Your task to perform on an android device: change alarm snooze length Image 0: 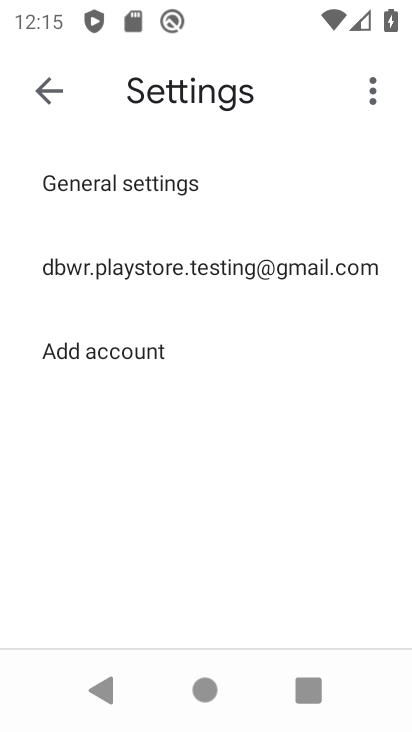
Step 0: press home button
Your task to perform on an android device: change alarm snooze length Image 1: 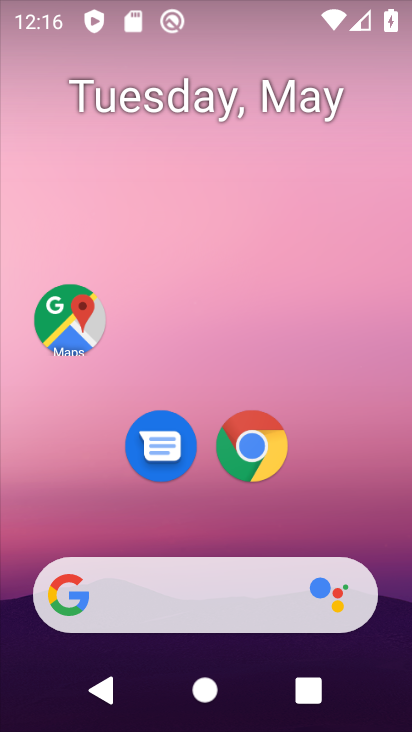
Step 1: drag from (205, 633) to (194, 199)
Your task to perform on an android device: change alarm snooze length Image 2: 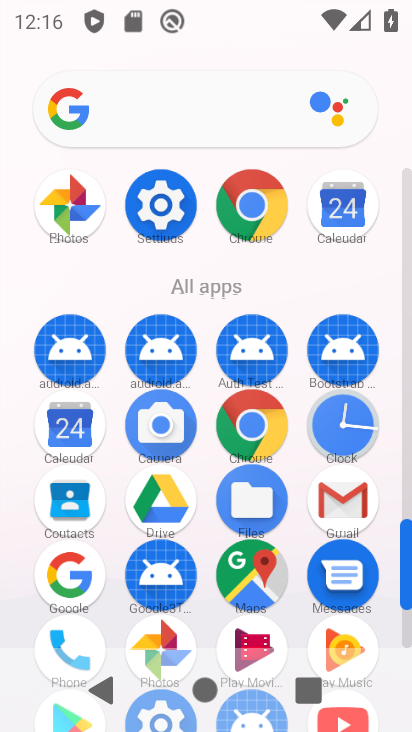
Step 2: click (174, 218)
Your task to perform on an android device: change alarm snooze length Image 3: 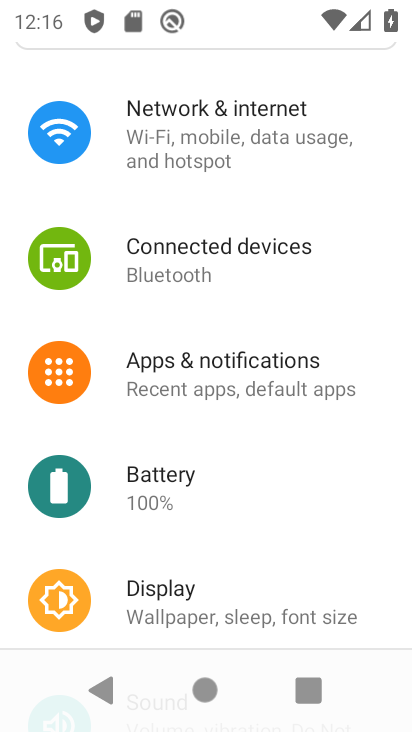
Step 3: drag from (205, 425) to (232, 118)
Your task to perform on an android device: change alarm snooze length Image 4: 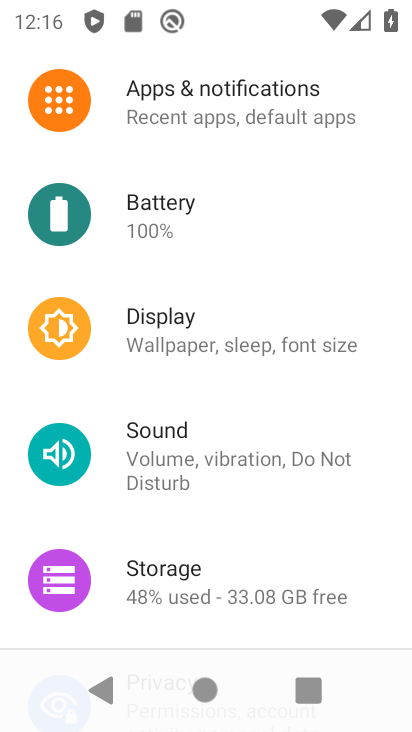
Step 4: press home button
Your task to perform on an android device: change alarm snooze length Image 5: 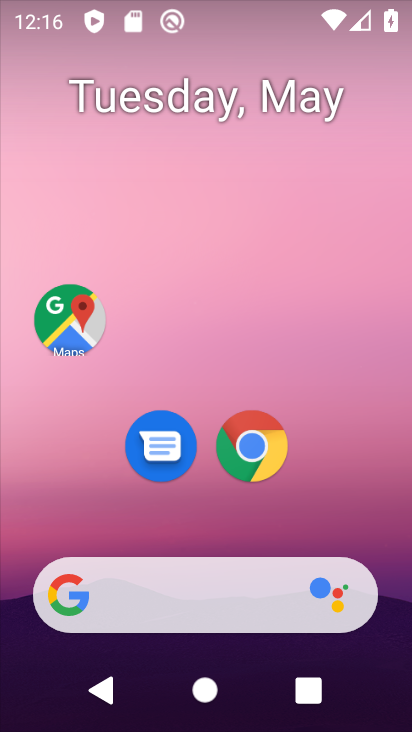
Step 5: drag from (261, 574) to (246, 57)
Your task to perform on an android device: change alarm snooze length Image 6: 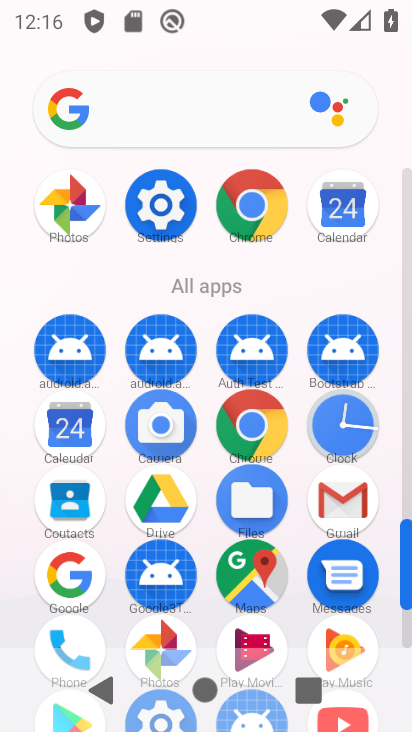
Step 6: click (347, 437)
Your task to perform on an android device: change alarm snooze length Image 7: 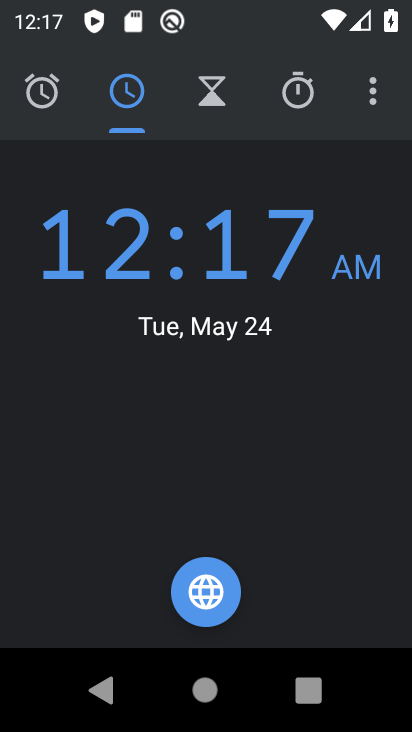
Step 7: click (373, 110)
Your task to perform on an android device: change alarm snooze length Image 8: 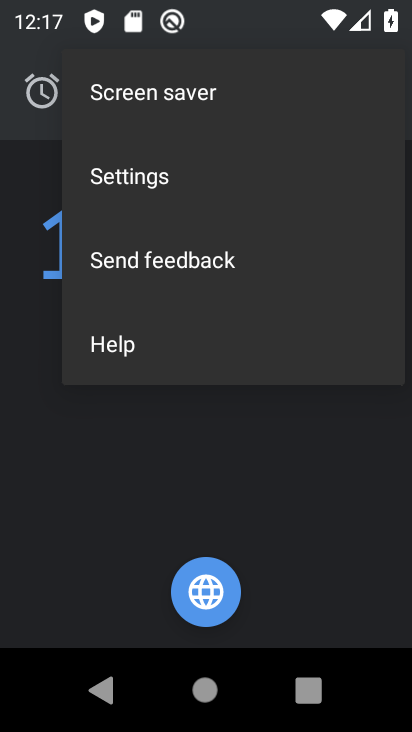
Step 8: click (176, 187)
Your task to perform on an android device: change alarm snooze length Image 9: 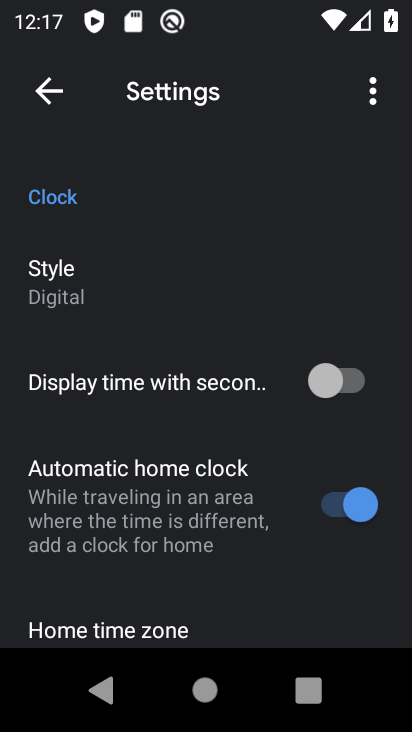
Step 9: drag from (144, 492) to (189, 167)
Your task to perform on an android device: change alarm snooze length Image 10: 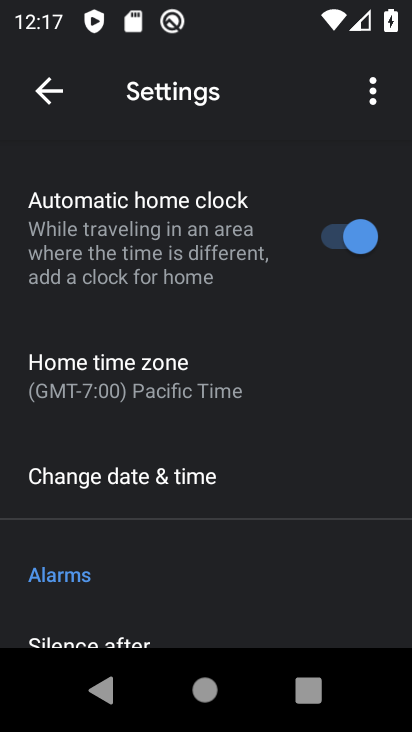
Step 10: drag from (164, 545) to (251, 137)
Your task to perform on an android device: change alarm snooze length Image 11: 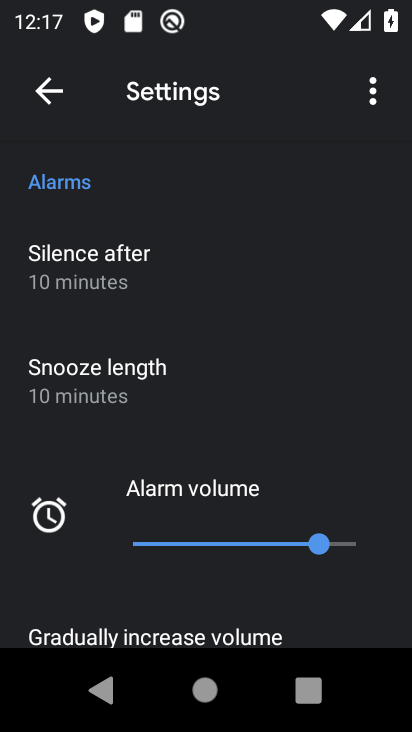
Step 11: click (162, 374)
Your task to perform on an android device: change alarm snooze length Image 12: 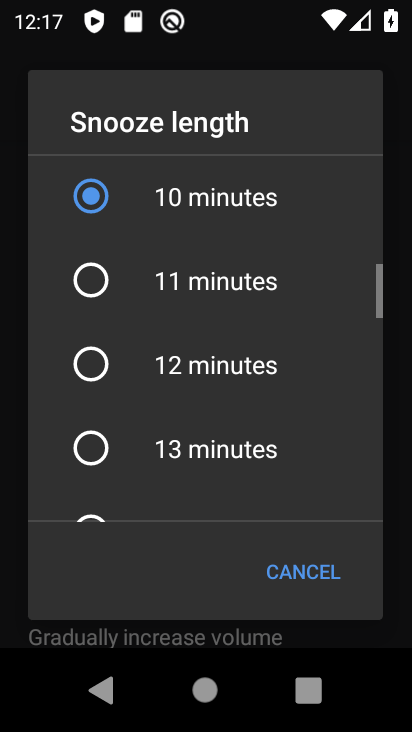
Step 12: click (105, 371)
Your task to perform on an android device: change alarm snooze length Image 13: 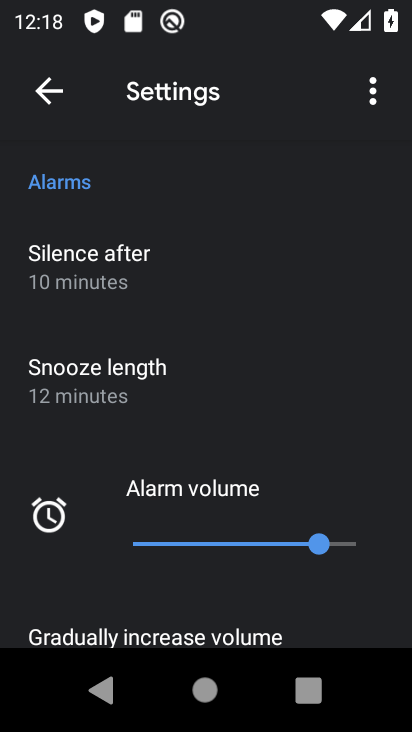
Step 13: task complete